Your task to perform on an android device: turn on bluetooth scan Image 0: 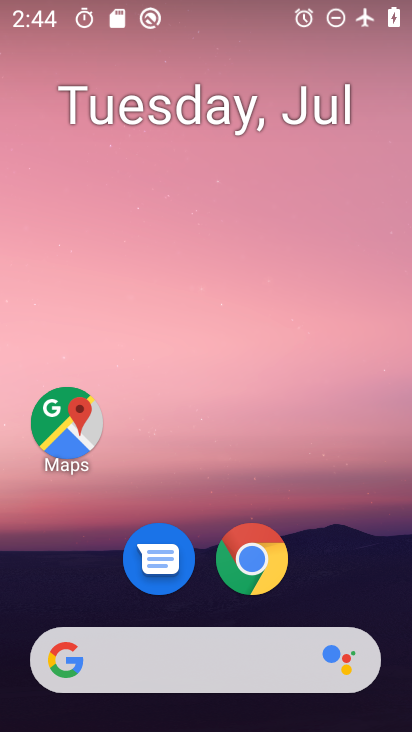
Step 0: drag from (360, 568) to (341, 121)
Your task to perform on an android device: turn on bluetooth scan Image 1: 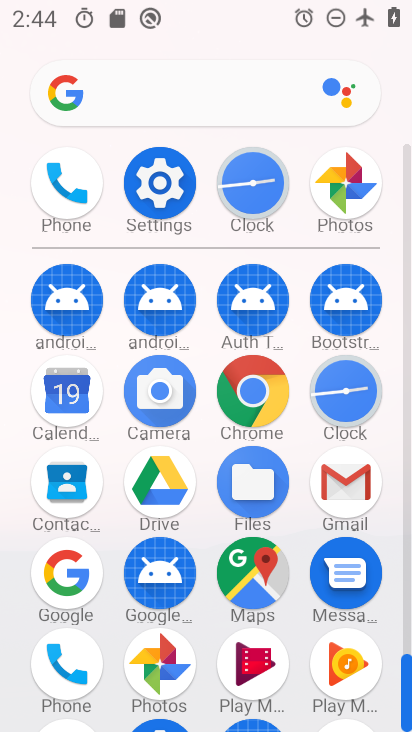
Step 1: click (165, 193)
Your task to perform on an android device: turn on bluetooth scan Image 2: 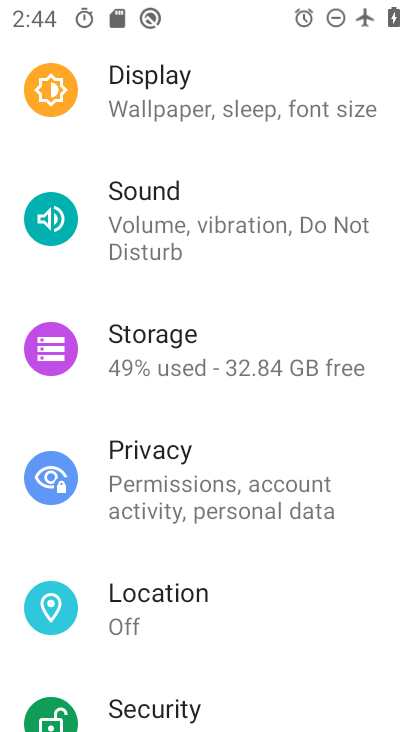
Step 2: drag from (341, 298) to (367, 443)
Your task to perform on an android device: turn on bluetooth scan Image 3: 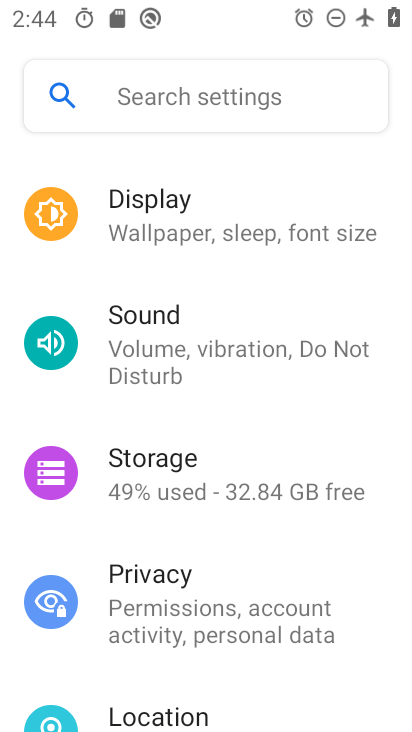
Step 3: drag from (378, 311) to (381, 398)
Your task to perform on an android device: turn on bluetooth scan Image 4: 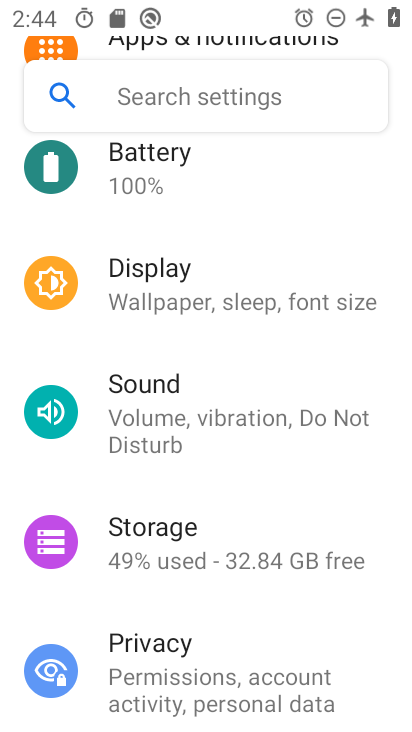
Step 4: drag from (381, 270) to (384, 390)
Your task to perform on an android device: turn on bluetooth scan Image 5: 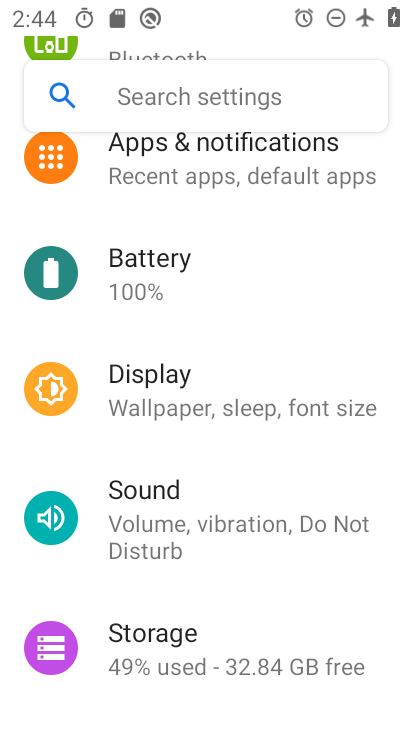
Step 5: drag from (383, 276) to (383, 409)
Your task to perform on an android device: turn on bluetooth scan Image 6: 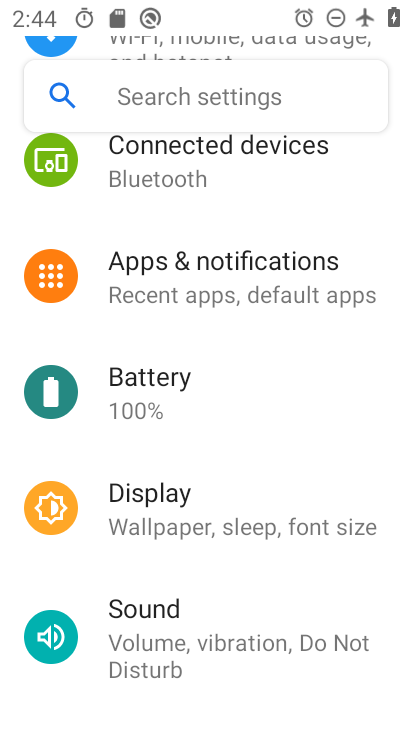
Step 6: drag from (375, 206) to (385, 455)
Your task to perform on an android device: turn on bluetooth scan Image 7: 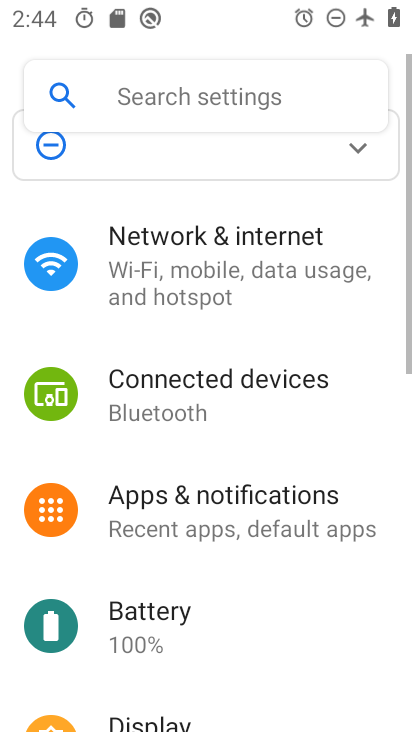
Step 7: drag from (381, 451) to (378, 340)
Your task to perform on an android device: turn on bluetooth scan Image 8: 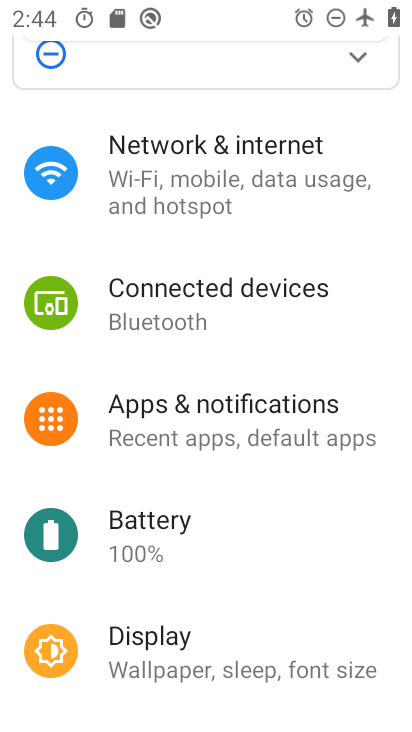
Step 8: drag from (372, 541) to (370, 417)
Your task to perform on an android device: turn on bluetooth scan Image 9: 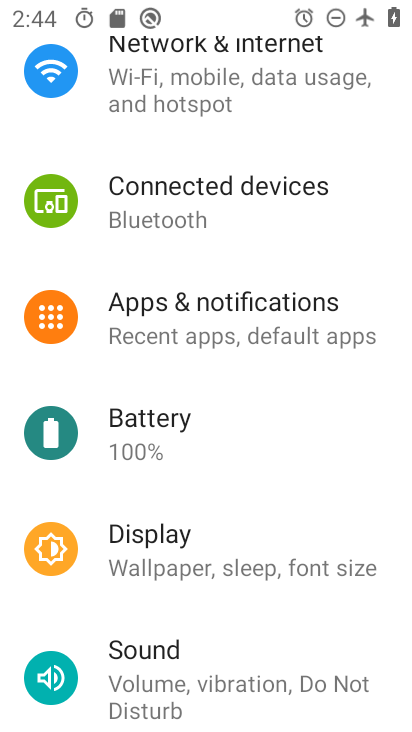
Step 9: drag from (362, 591) to (374, 435)
Your task to perform on an android device: turn on bluetooth scan Image 10: 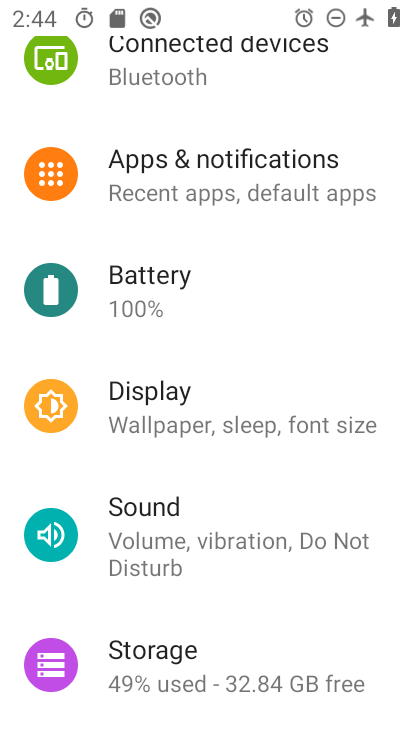
Step 10: drag from (350, 609) to (354, 467)
Your task to perform on an android device: turn on bluetooth scan Image 11: 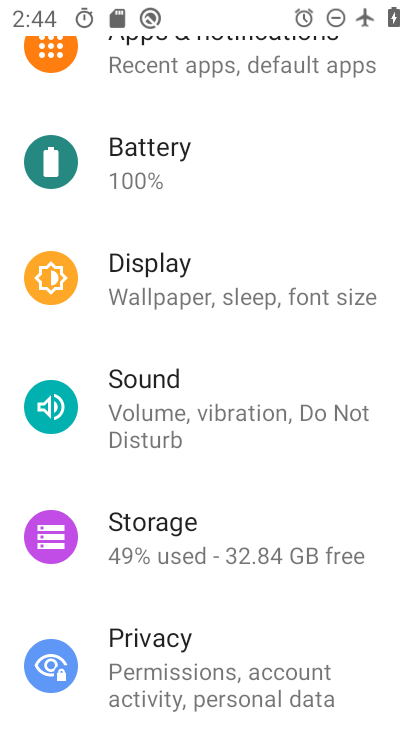
Step 11: drag from (363, 607) to (357, 446)
Your task to perform on an android device: turn on bluetooth scan Image 12: 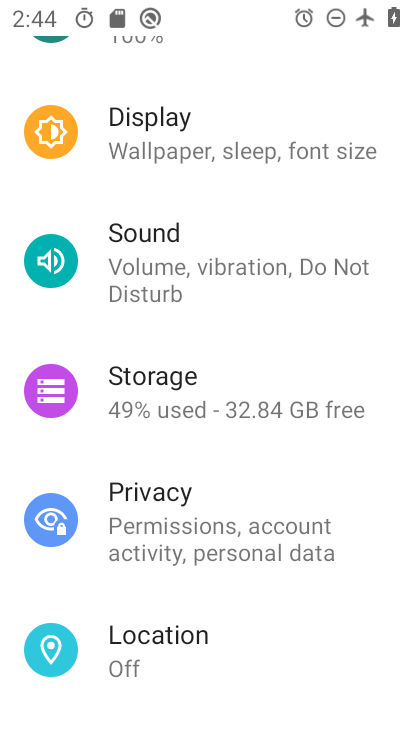
Step 12: drag from (348, 617) to (355, 467)
Your task to perform on an android device: turn on bluetooth scan Image 13: 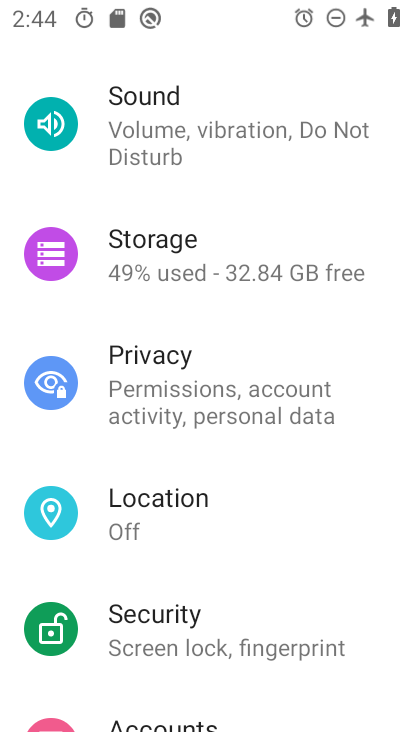
Step 13: click (334, 523)
Your task to perform on an android device: turn on bluetooth scan Image 14: 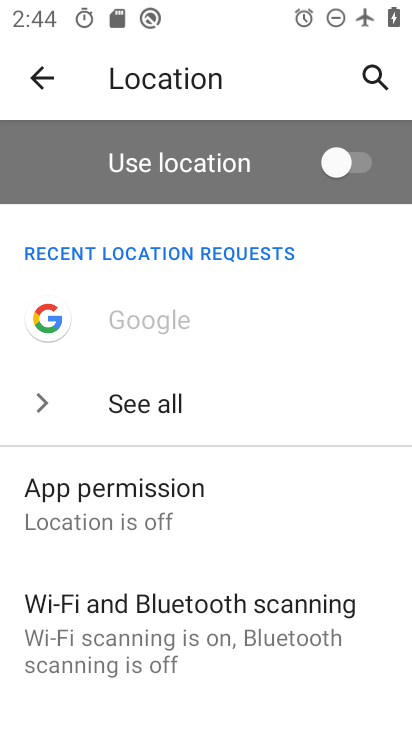
Step 14: click (185, 594)
Your task to perform on an android device: turn on bluetooth scan Image 15: 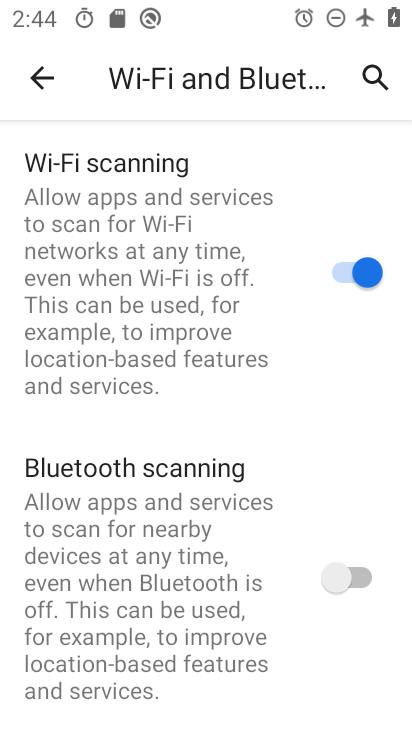
Step 15: click (351, 571)
Your task to perform on an android device: turn on bluetooth scan Image 16: 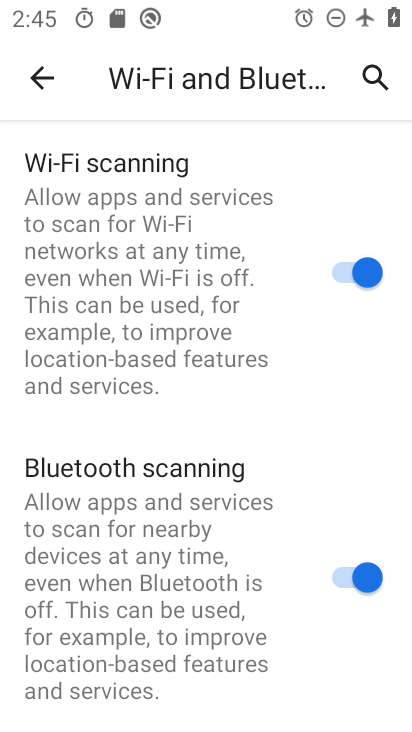
Step 16: task complete